Your task to perform on an android device: open app "Chime – Mobile Banking" Image 0: 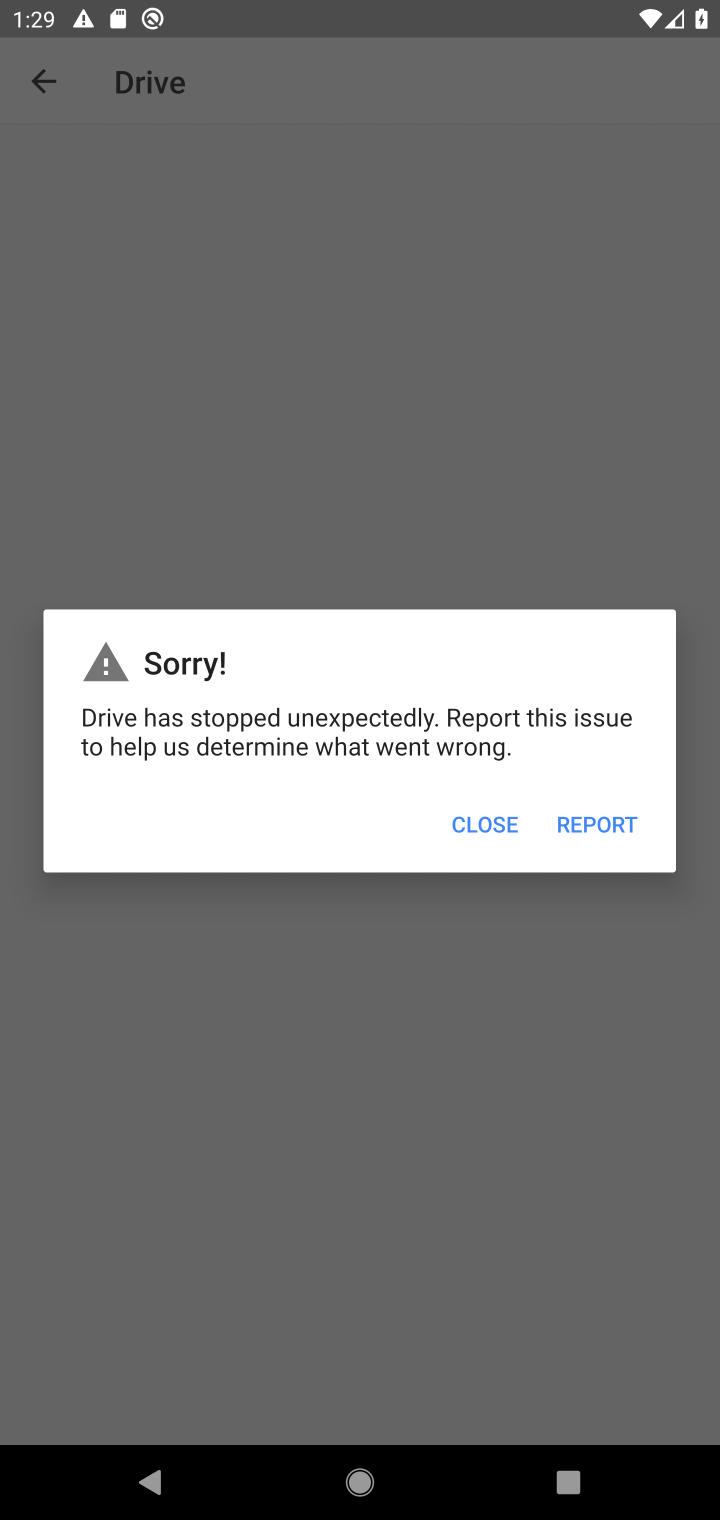
Step 0: press home button
Your task to perform on an android device: open app "Chime – Mobile Banking" Image 1: 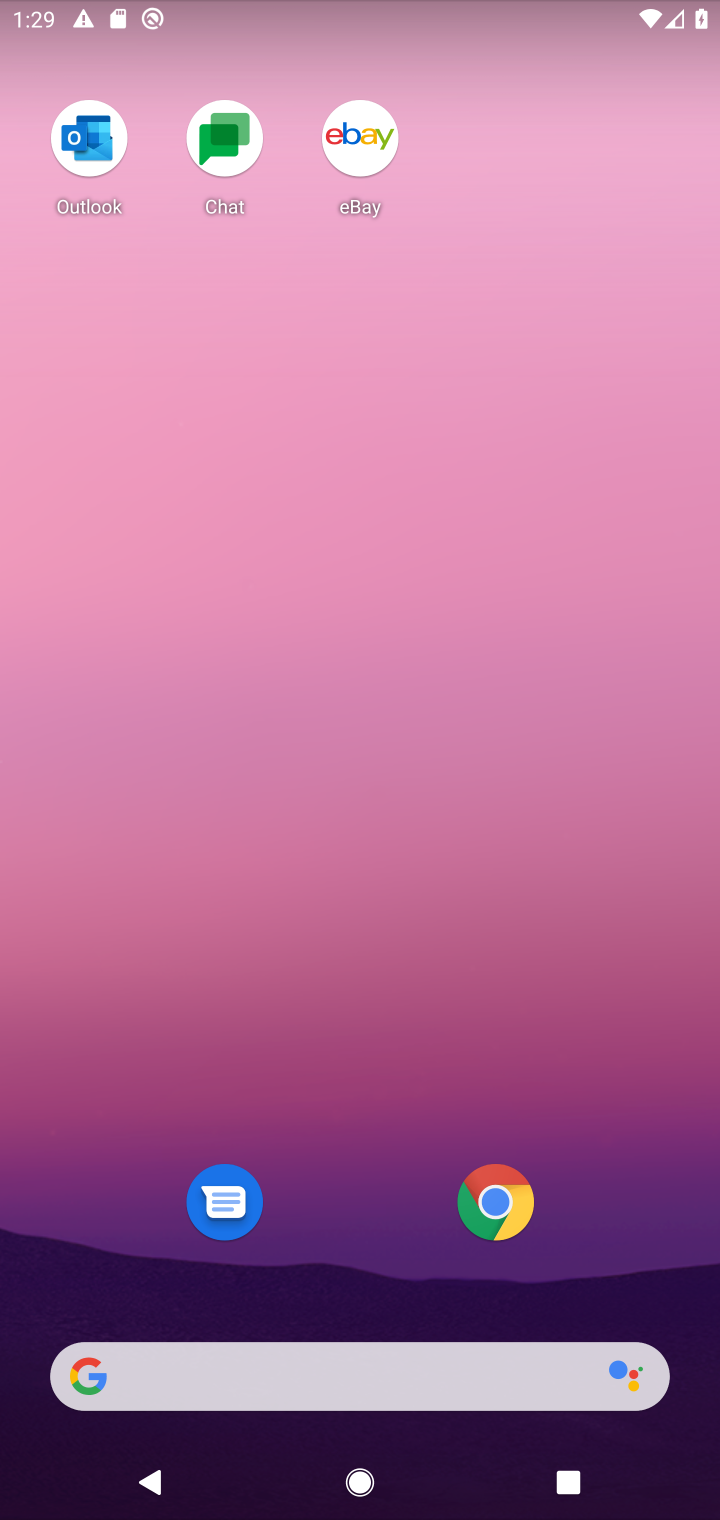
Step 1: click (443, 1374)
Your task to perform on an android device: open app "Chime – Mobile Banking" Image 2: 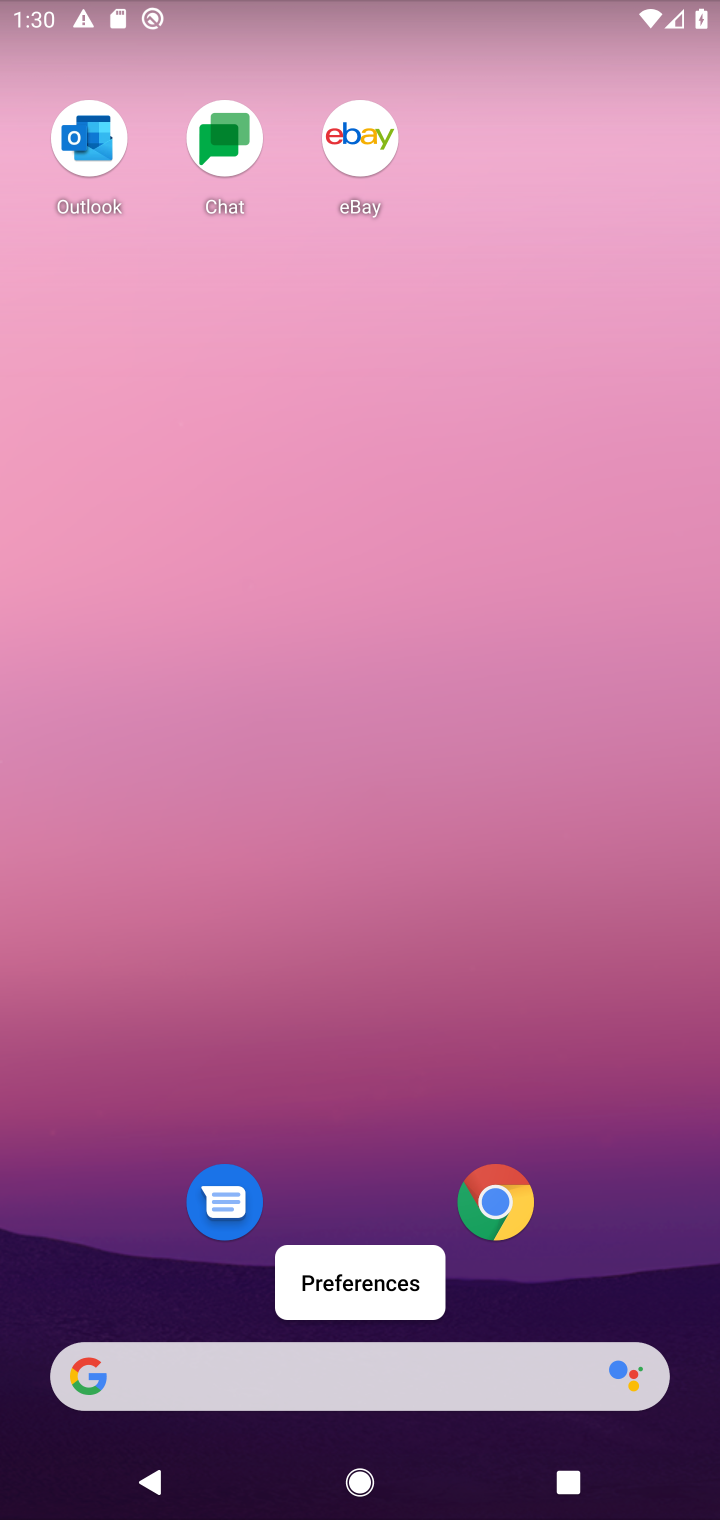
Step 2: click (379, 1352)
Your task to perform on an android device: open app "Chime – Mobile Banking" Image 3: 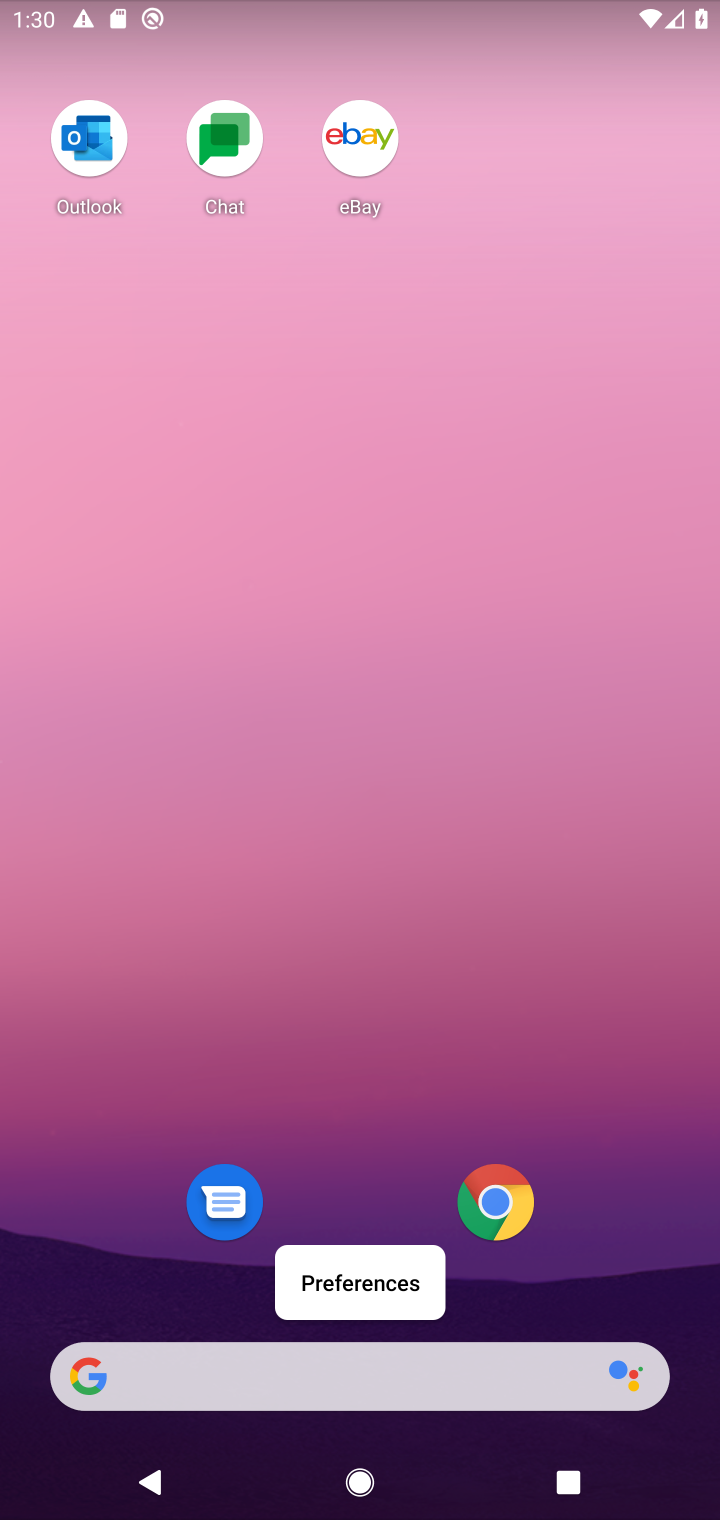
Step 3: click (379, 1352)
Your task to perform on an android device: open app "Chime – Mobile Banking" Image 4: 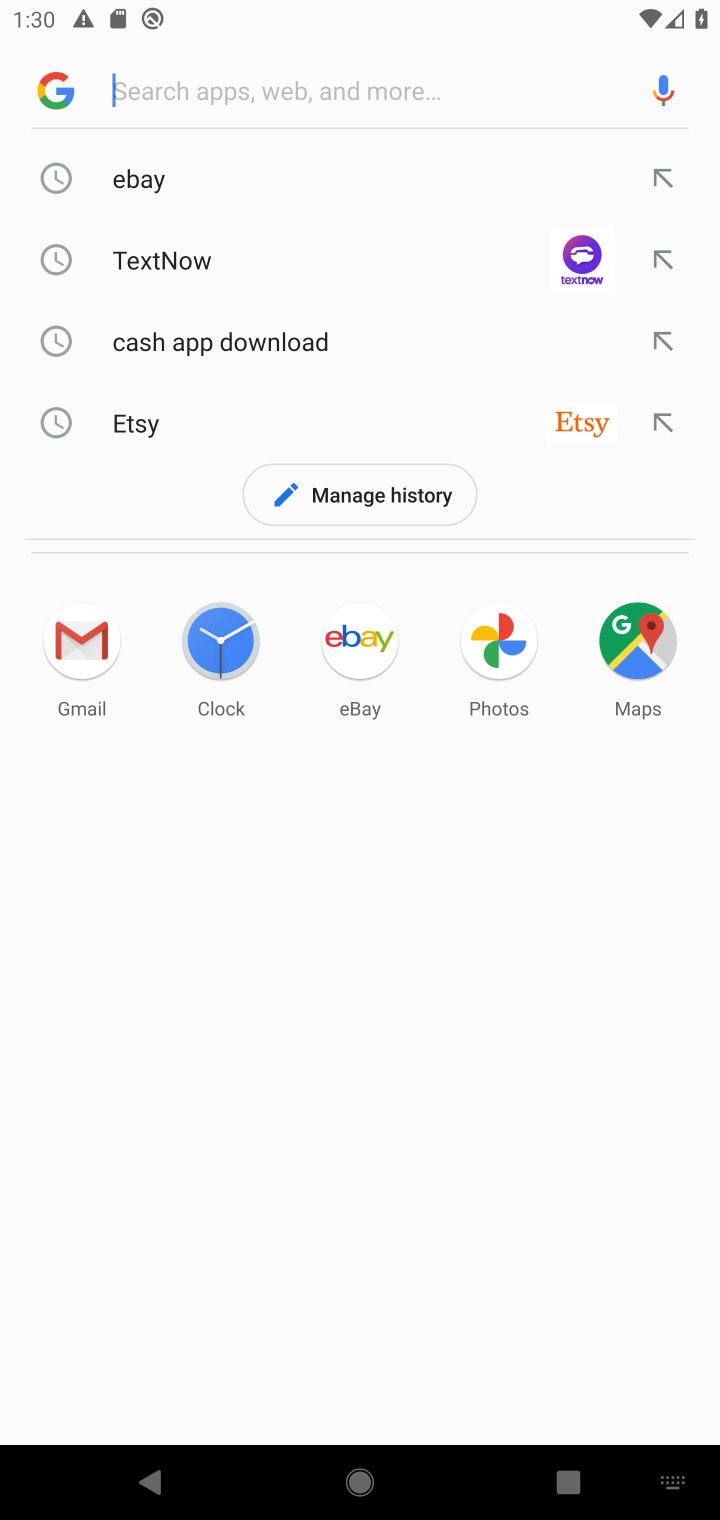
Step 4: type "chime"
Your task to perform on an android device: open app "Chime – Mobile Banking" Image 5: 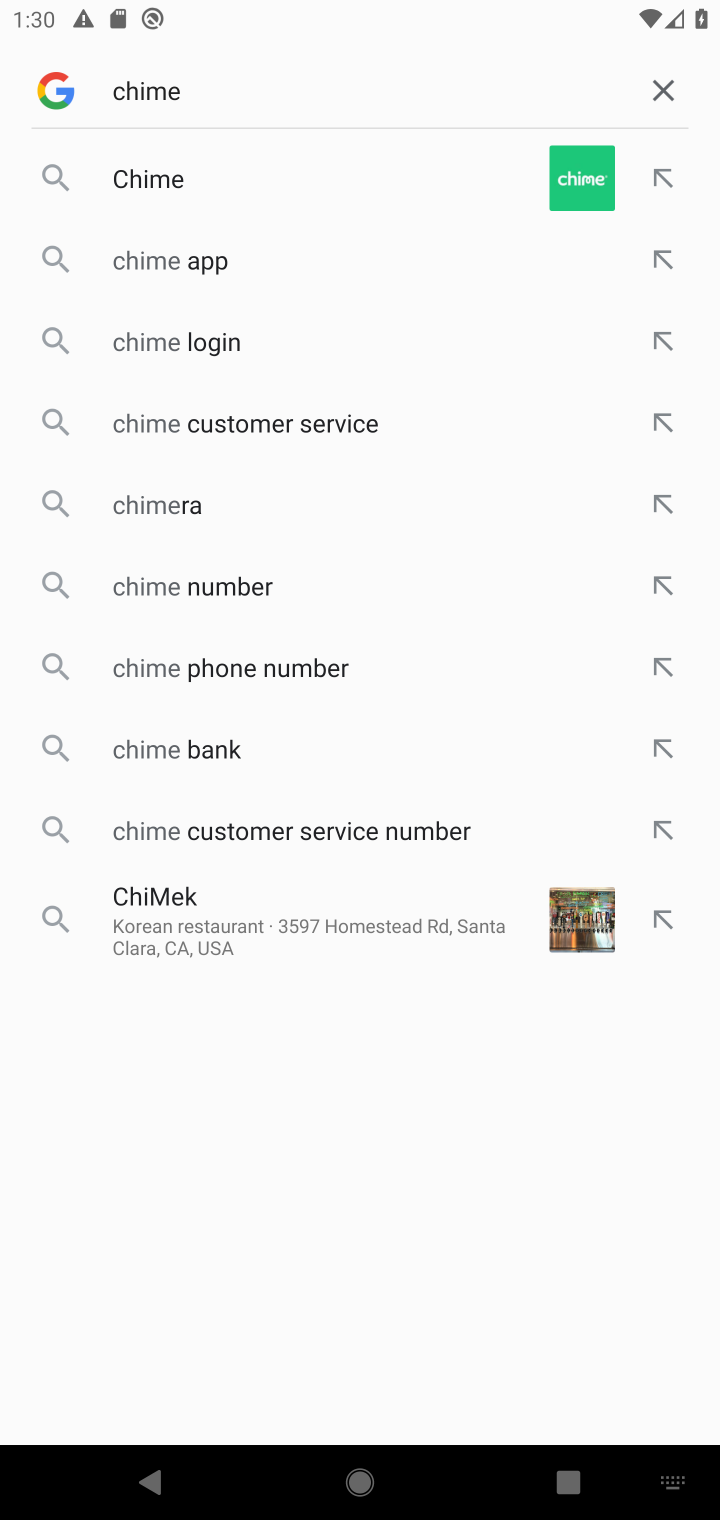
Step 5: click (206, 174)
Your task to perform on an android device: open app "Chime – Mobile Banking" Image 6: 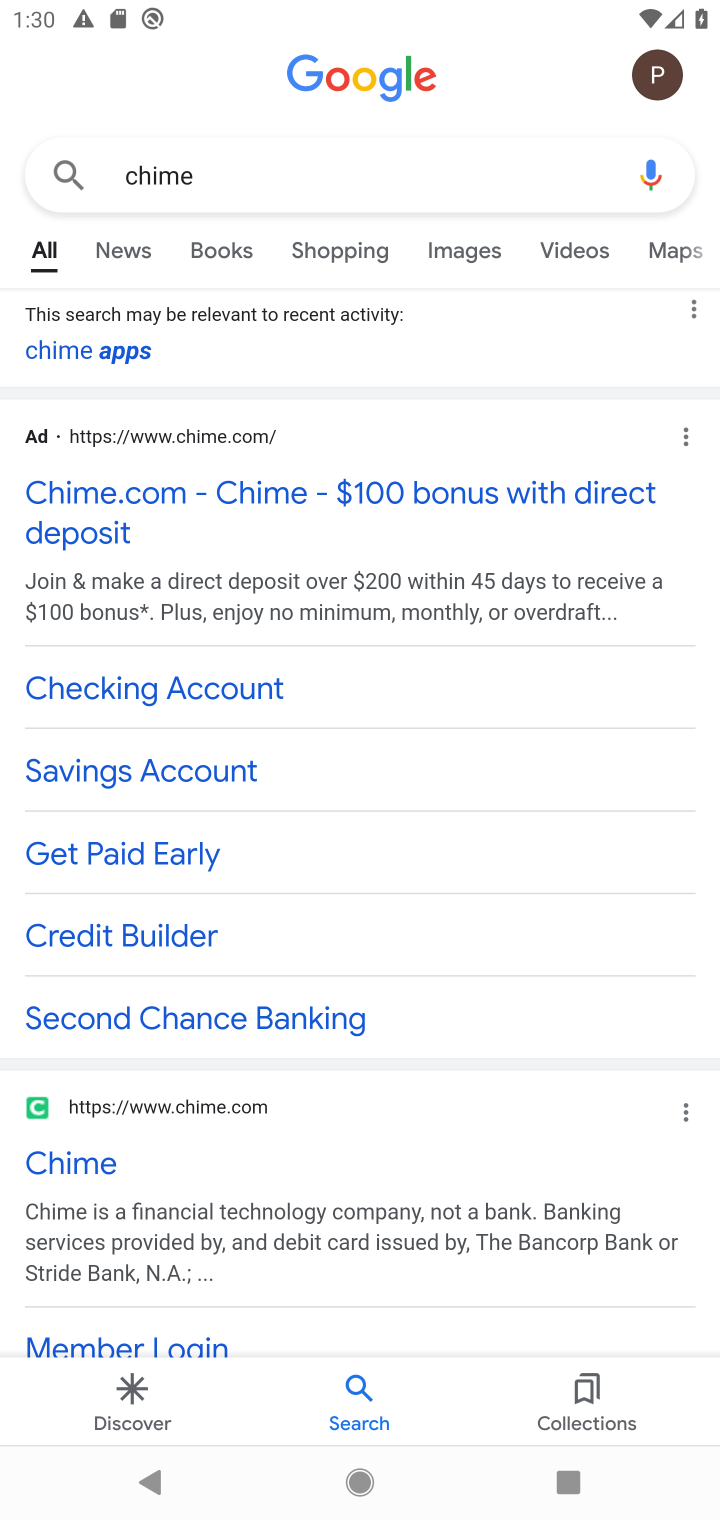
Step 6: task complete